Your task to perform on an android device: turn on notifications settings in the gmail app Image 0: 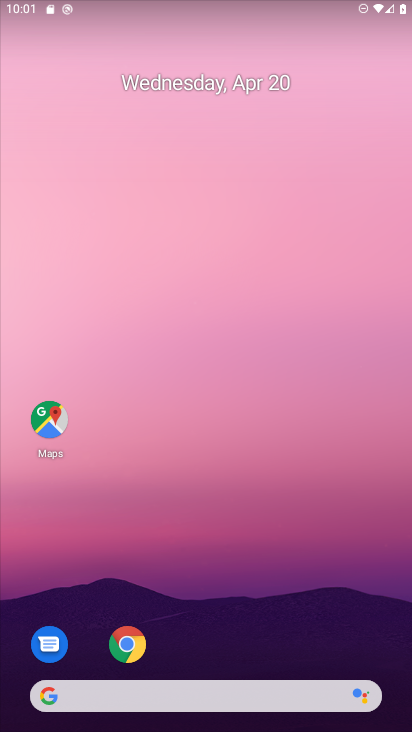
Step 0: drag from (342, 643) to (242, 69)
Your task to perform on an android device: turn on notifications settings in the gmail app Image 1: 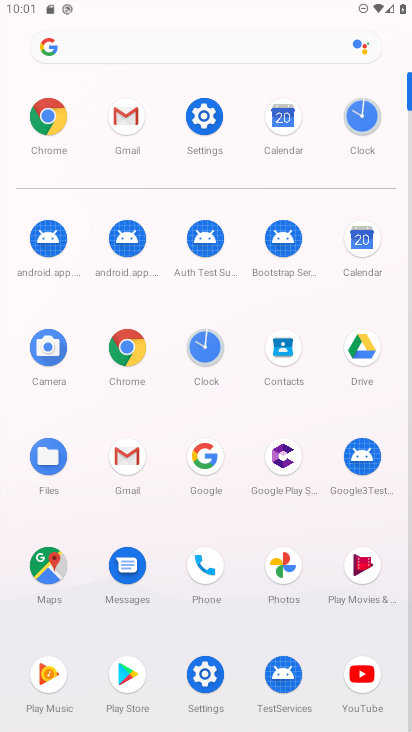
Step 1: click (136, 463)
Your task to perform on an android device: turn on notifications settings in the gmail app Image 2: 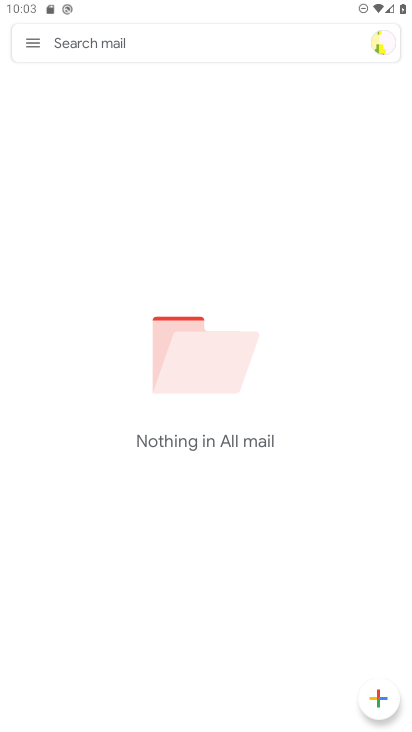
Step 2: click (31, 39)
Your task to perform on an android device: turn on notifications settings in the gmail app Image 3: 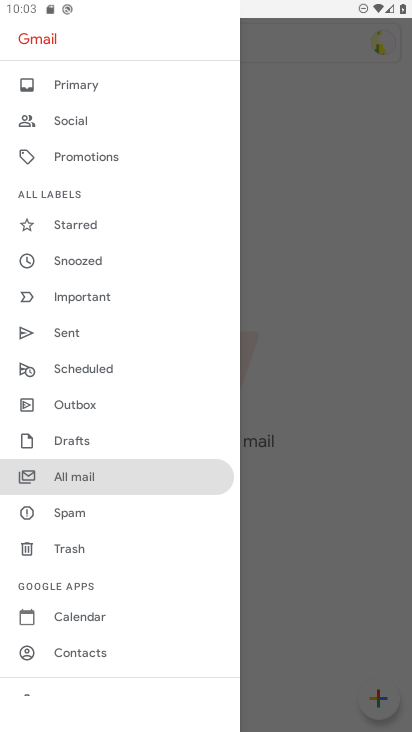
Step 3: drag from (58, 622) to (109, 96)
Your task to perform on an android device: turn on notifications settings in the gmail app Image 4: 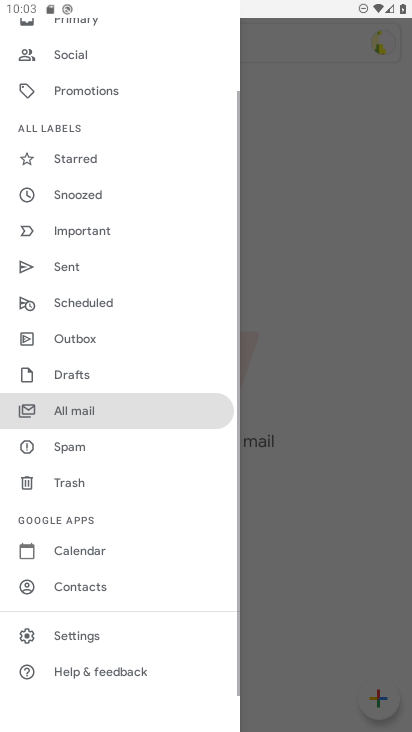
Step 4: click (75, 617)
Your task to perform on an android device: turn on notifications settings in the gmail app Image 5: 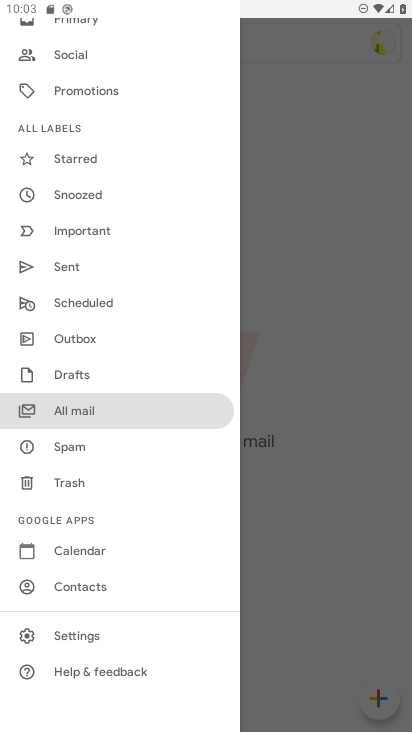
Step 5: click (100, 635)
Your task to perform on an android device: turn on notifications settings in the gmail app Image 6: 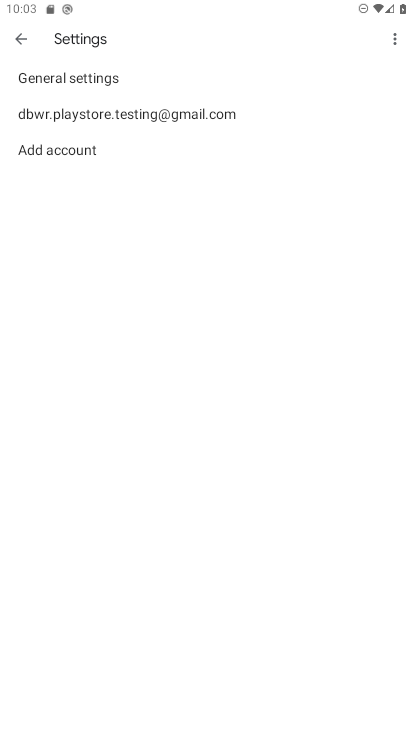
Step 6: click (135, 123)
Your task to perform on an android device: turn on notifications settings in the gmail app Image 7: 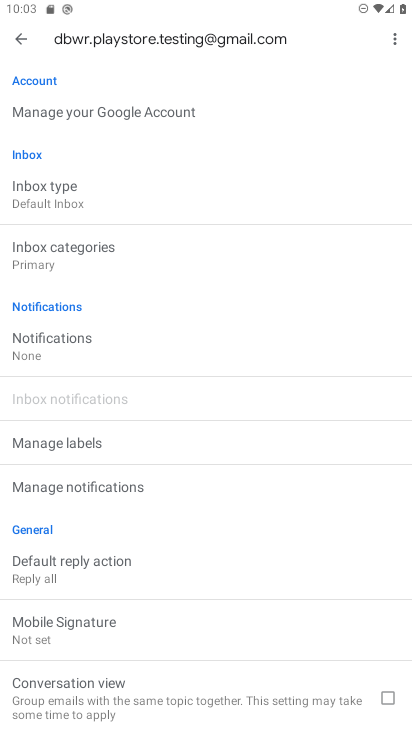
Step 7: click (77, 335)
Your task to perform on an android device: turn on notifications settings in the gmail app Image 8: 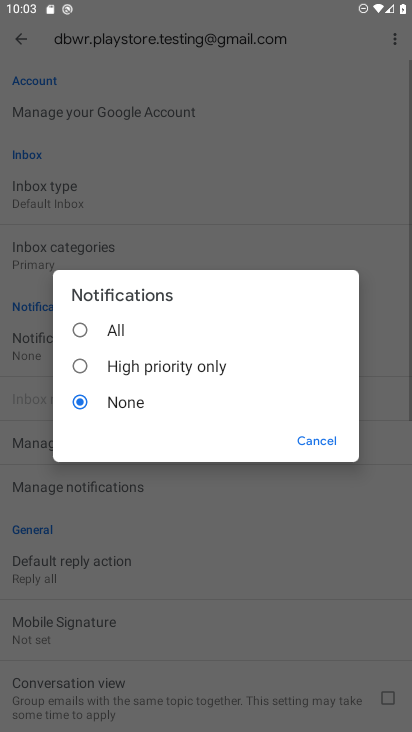
Step 8: click (121, 323)
Your task to perform on an android device: turn on notifications settings in the gmail app Image 9: 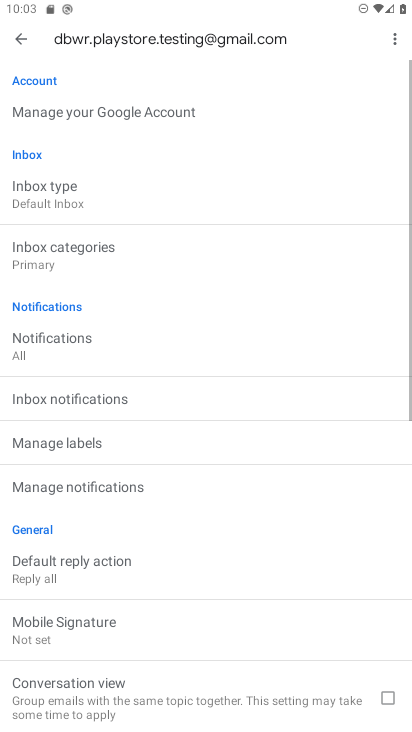
Step 9: task complete